Your task to perform on an android device: open app "Lyft - Rideshare, Bikes, Scooters & Transit" Image 0: 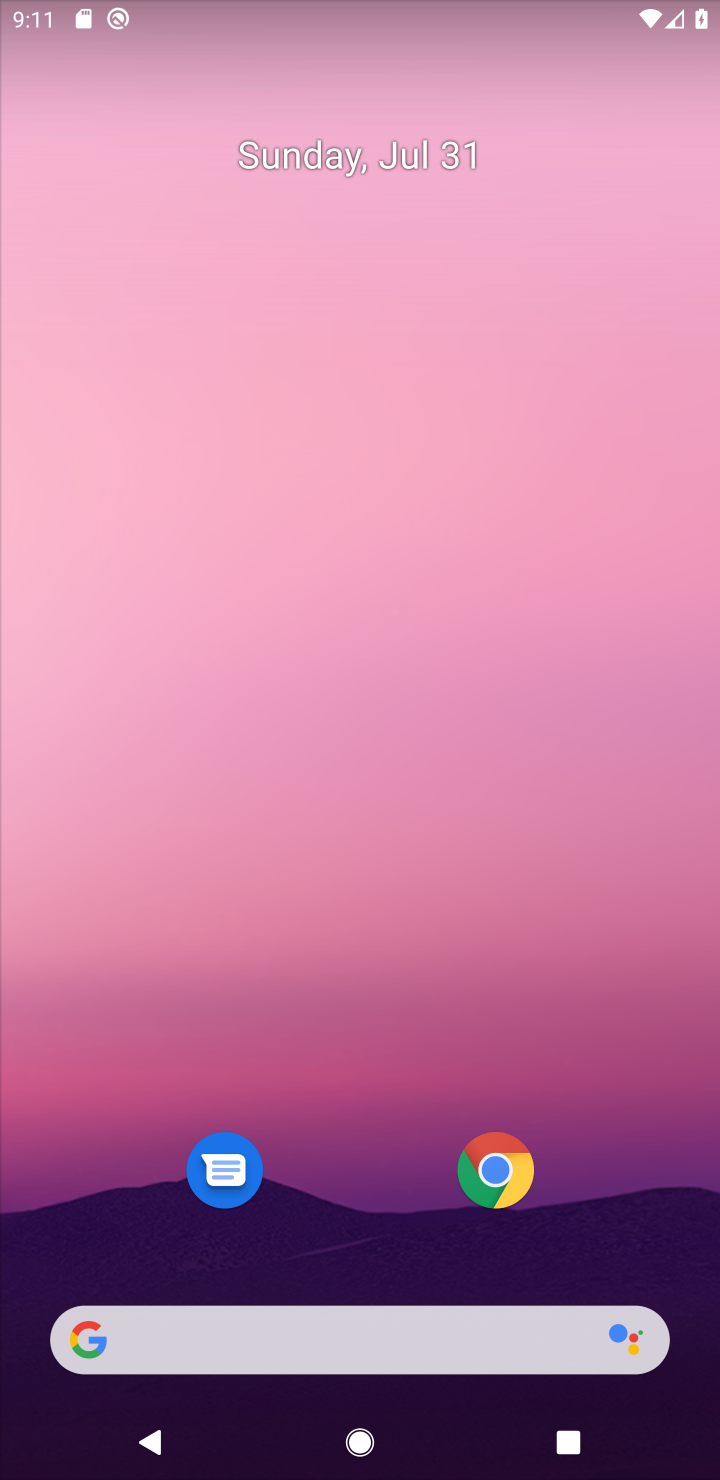
Step 0: drag from (598, 1214) to (310, 36)
Your task to perform on an android device: open app "Lyft - Rideshare, Bikes, Scooters & Transit" Image 1: 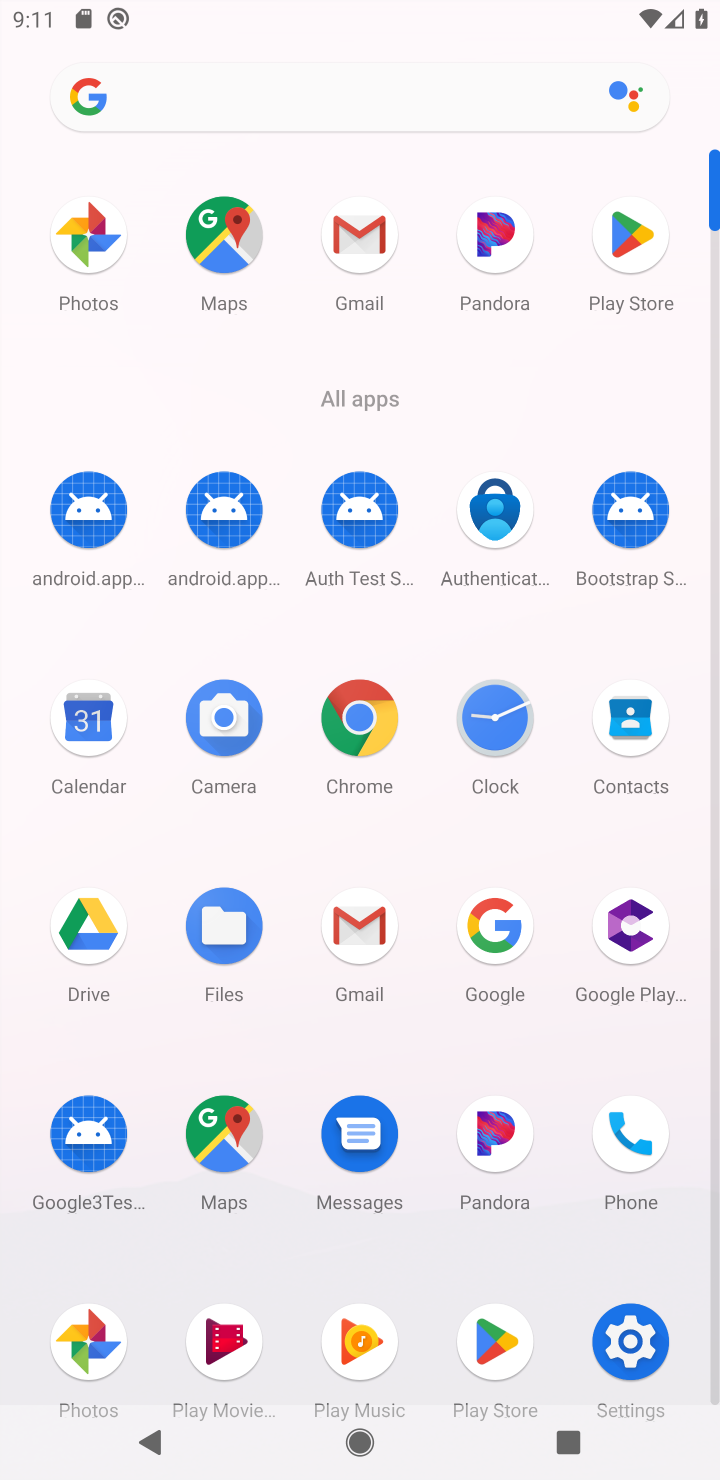
Step 1: click (505, 1325)
Your task to perform on an android device: open app "Lyft - Rideshare, Bikes, Scooters & Transit" Image 2: 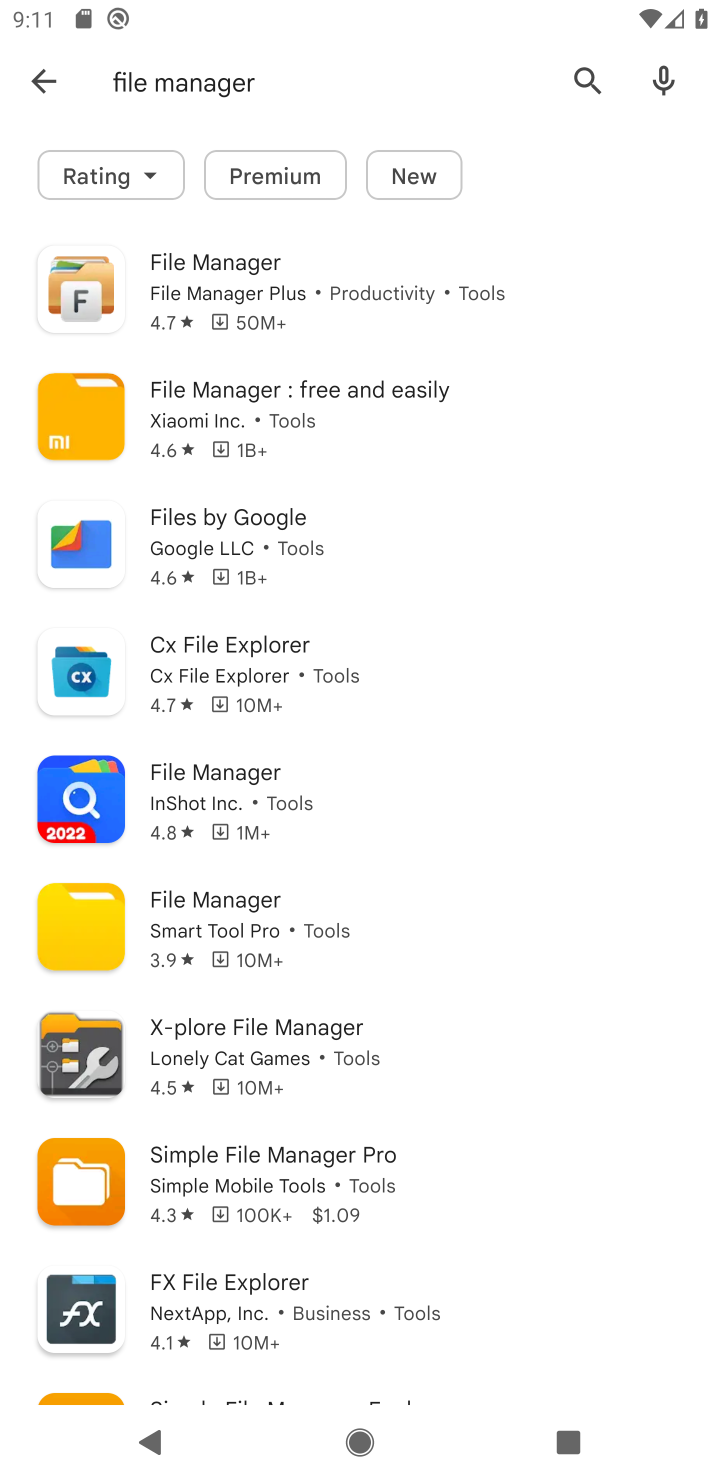
Step 2: press back button
Your task to perform on an android device: open app "Lyft - Rideshare, Bikes, Scooters & Transit" Image 3: 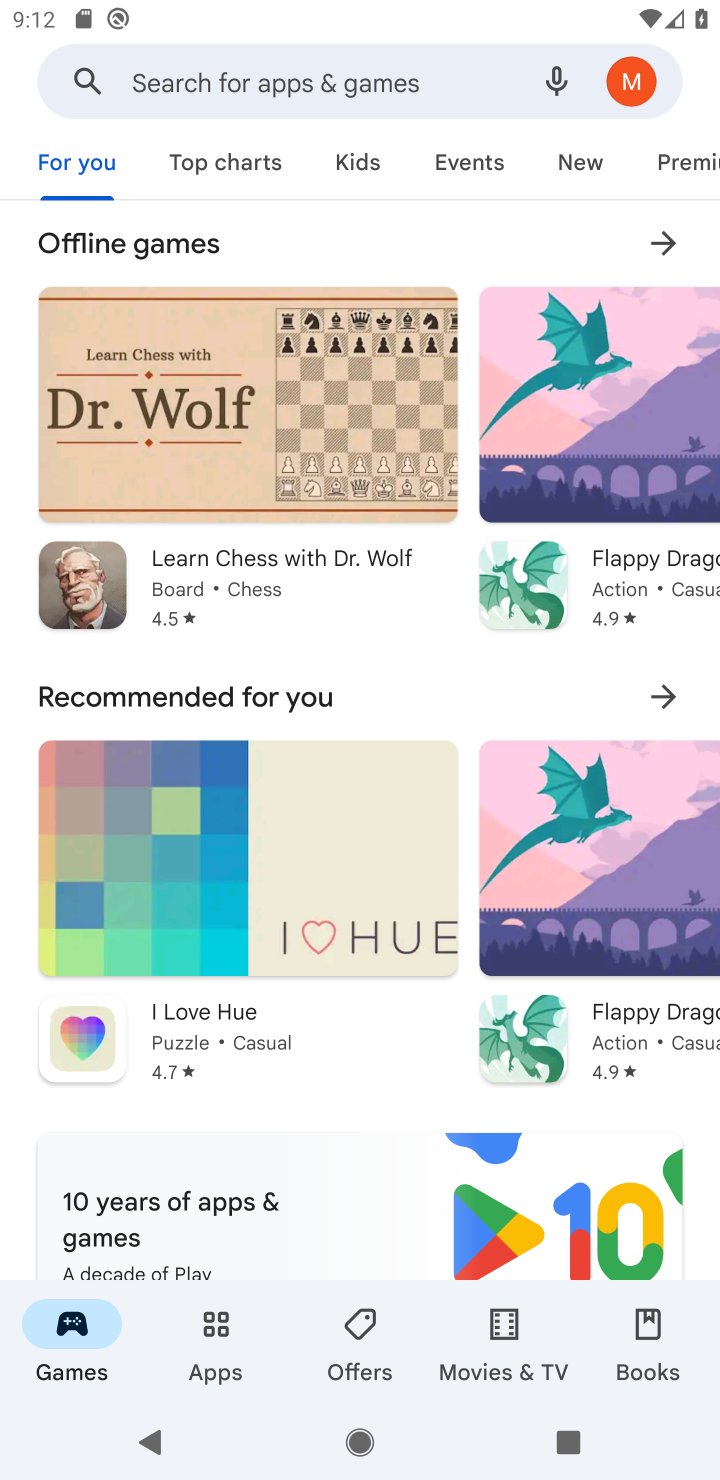
Step 3: click (295, 90)
Your task to perform on an android device: open app "Lyft - Rideshare, Bikes, Scooters & Transit" Image 4: 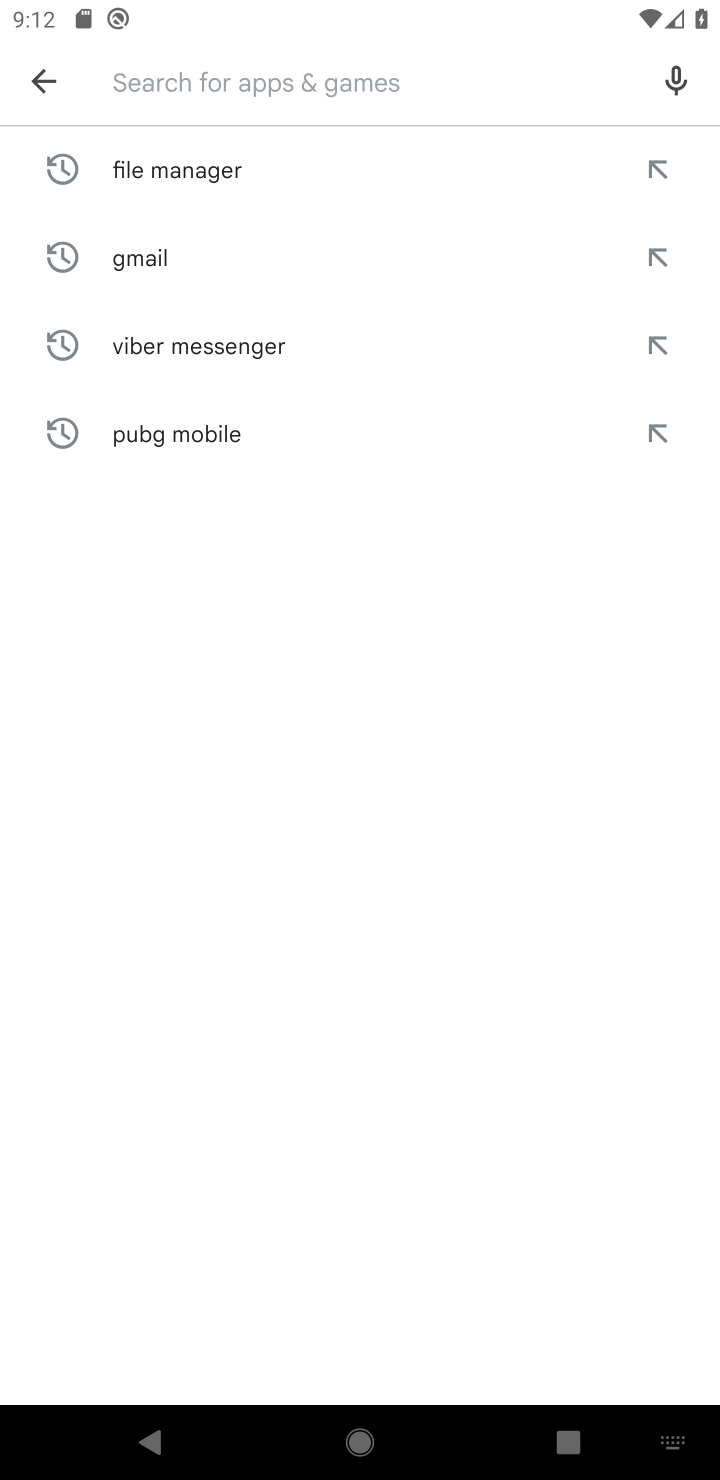
Step 4: type "Lyft - Rideshare, Bikes, Scooters & Transit"
Your task to perform on an android device: open app "Lyft - Rideshare, Bikes, Scooters & Transit" Image 5: 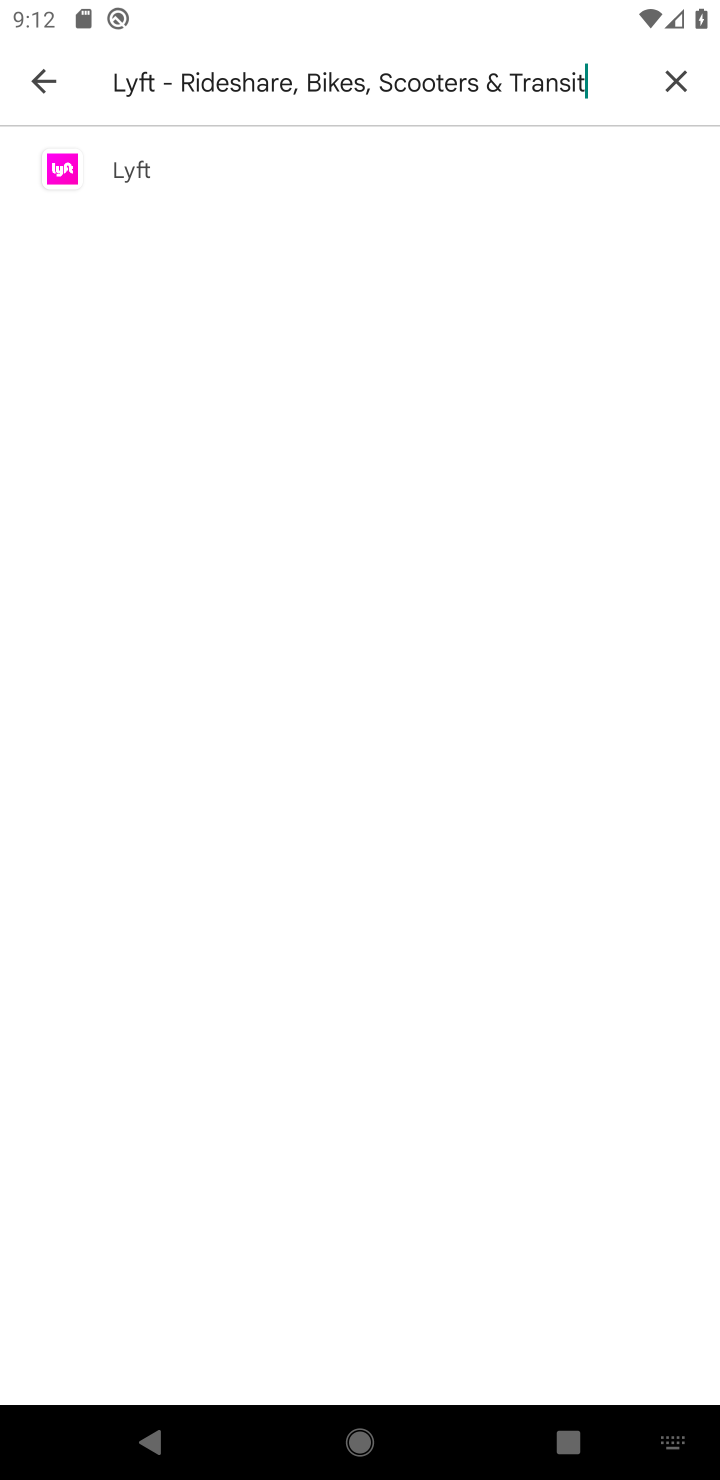
Step 5: click (167, 177)
Your task to perform on an android device: open app "Lyft - Rideshare, Bikes, Scooters & Transit" Image 6: 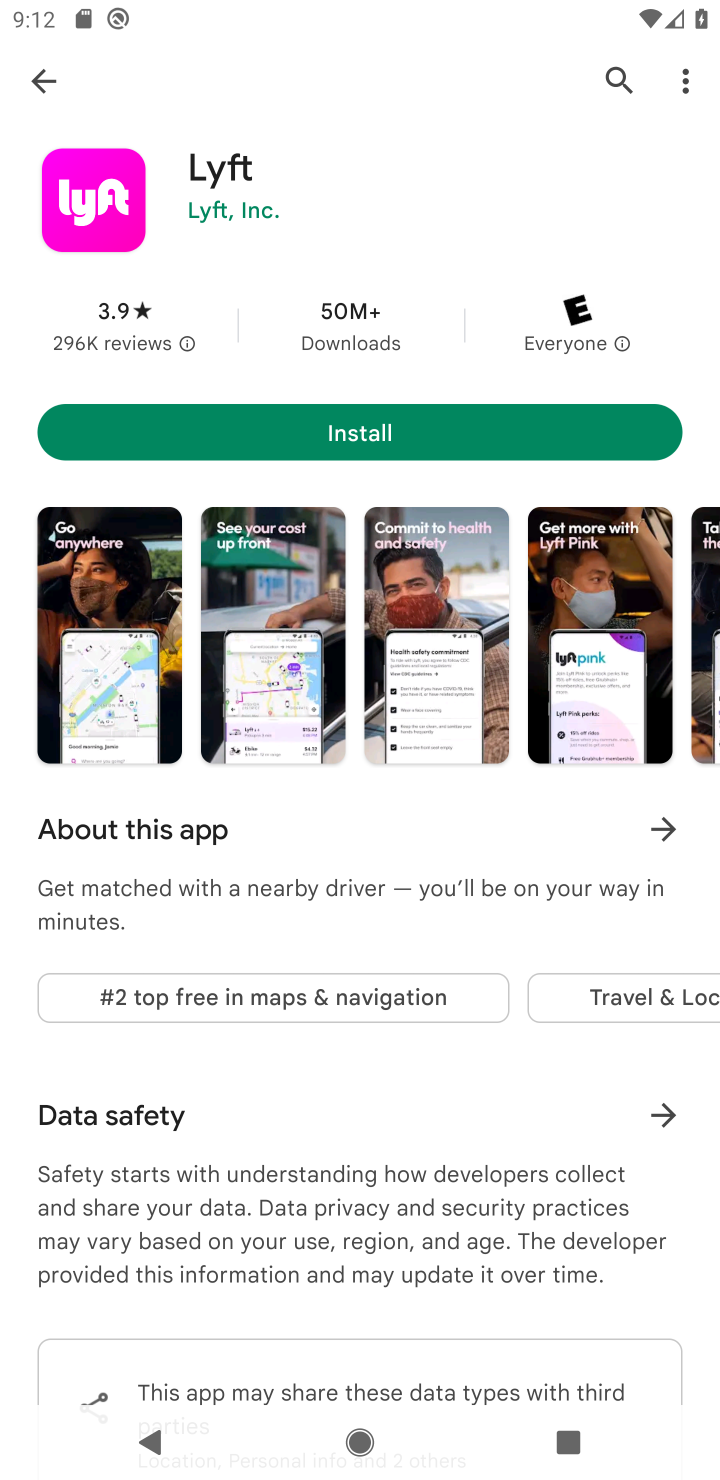
Step 6: task complete